Your task to perform on an android device: Open eBay Image 0: 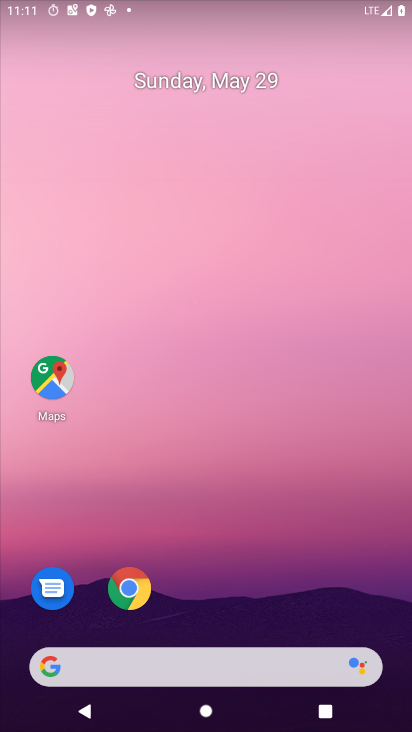
Step 0: drag from (214, 553) to (238, 79)
Your task to perform on an android device: Open eBay Image 1: 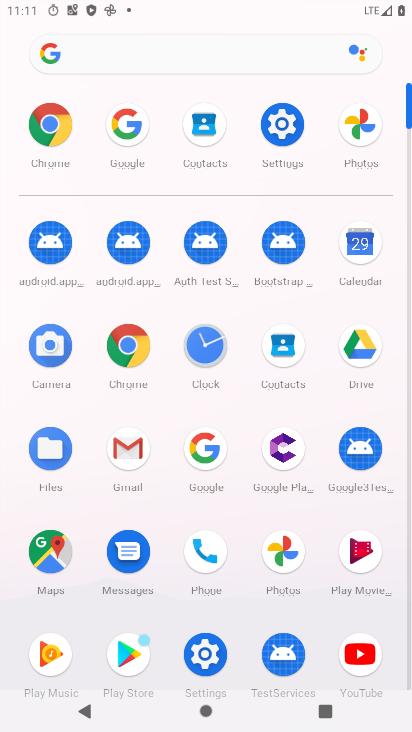
Step 1: click (117, 365)
Your task to perform on an android device: Open eBay Image 2: 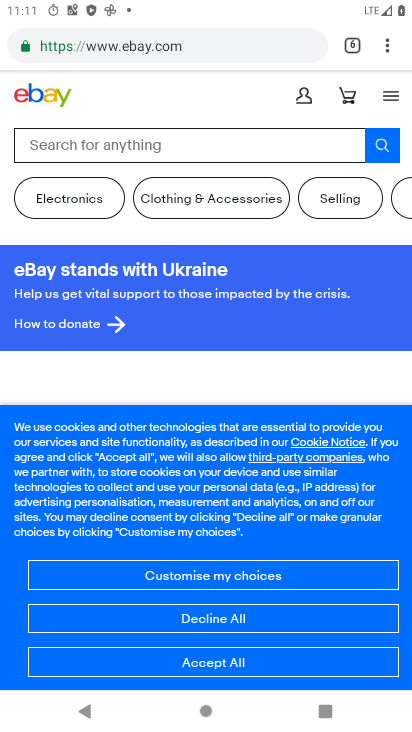
Step 2: click (358, 45)
Your task to perform on an android device: Open eBay Image 3: 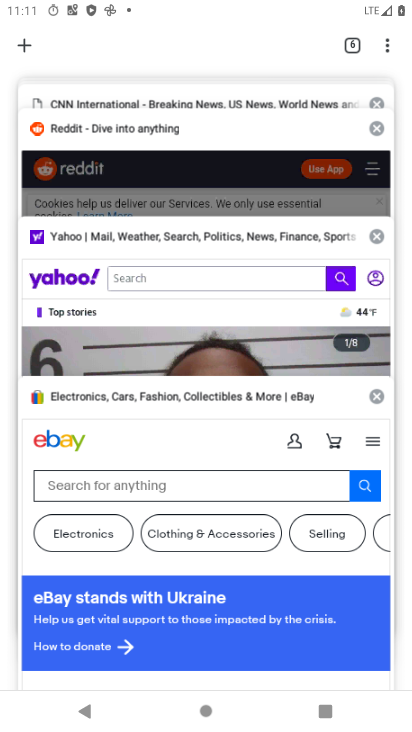
Step 3: click (115, 503)
Your task to perform on an android device: Open eBay Image 4: 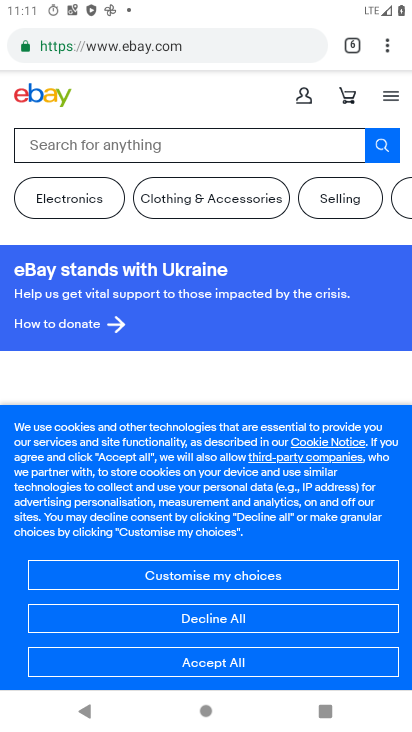
Step 4: task complete